Your task to perform on an android device: turn off wifi Image 0: 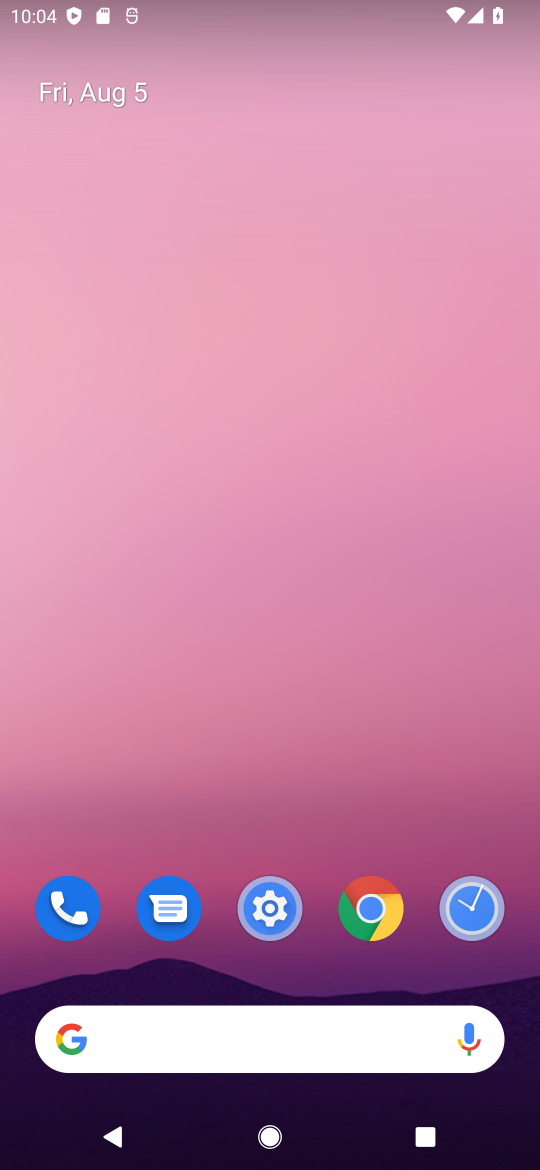
Step 0: task complete